Your task to perform on an android device: turn on improve location accuracy Image 0: 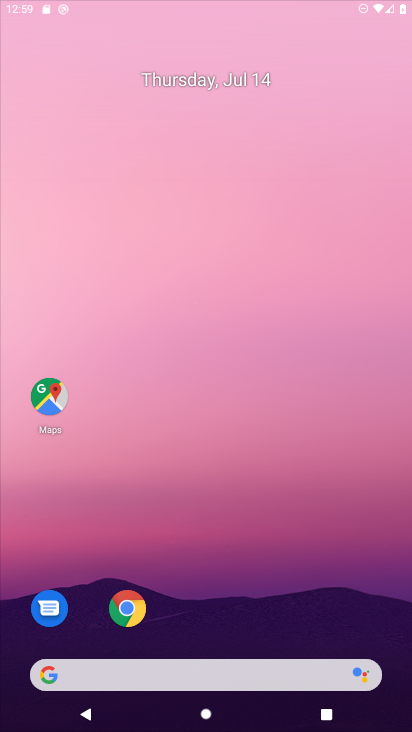
Step 0: press home button
Your task to perform on an android device: turn on improve location accuracy Image 1: 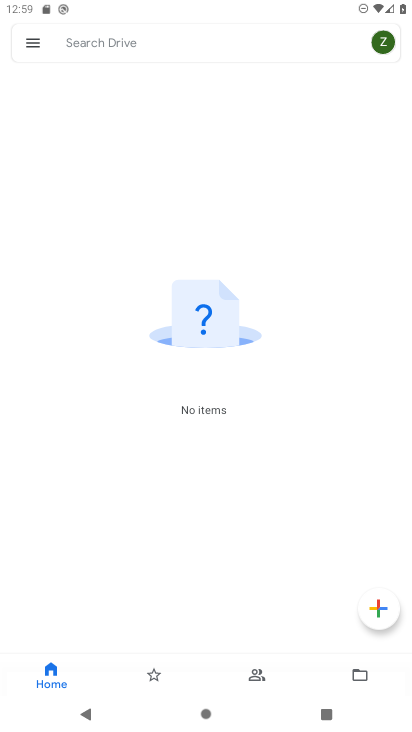
Step 1: drag from (244, 95) to (244, 55)
Your task to perform on an android device: turn on improve location accuracy Image 2: 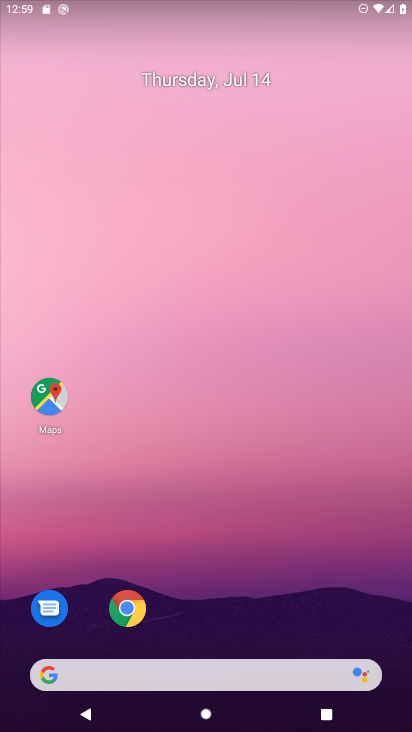
Step 2: drag from (233, 725) to (243, 114)
Your task to perform on an android device: turn on improve location accuracy Image 3: 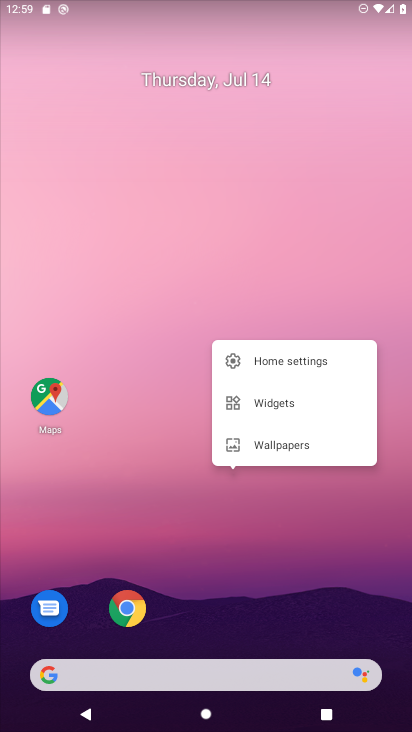
Step 3: click (87, 328)
Your task to perform on an android device: turn on improve location accuracy Image 4: 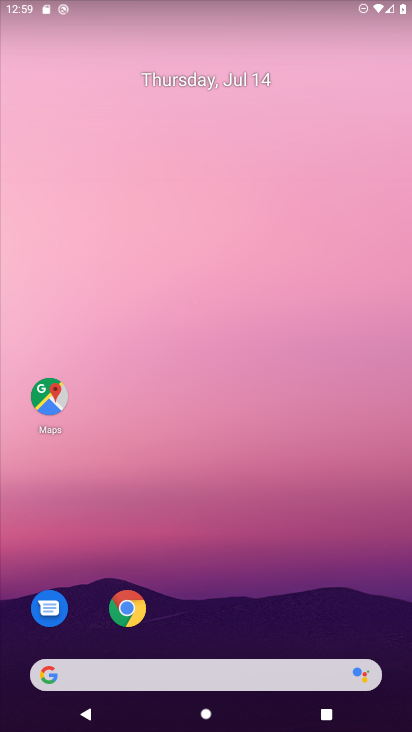
Step 4: drag from (236, 348) to (226, 117)
Your task to perform on an android device: turn on improve location accuracy Image 5: 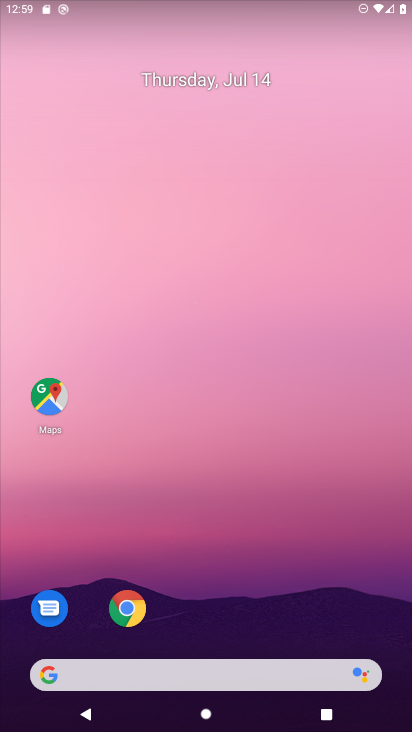
Step 5: drag from (231, 417) to (233, 74)
Your task to perform on an android device: turn on improve location accuracy Image 6: 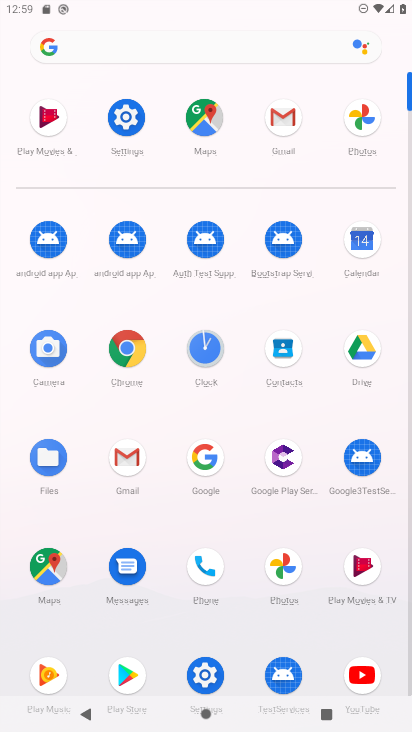
Step 6: click (123, 115)
Your task to perform on an android device: turn on improve location accuracy Image 7: 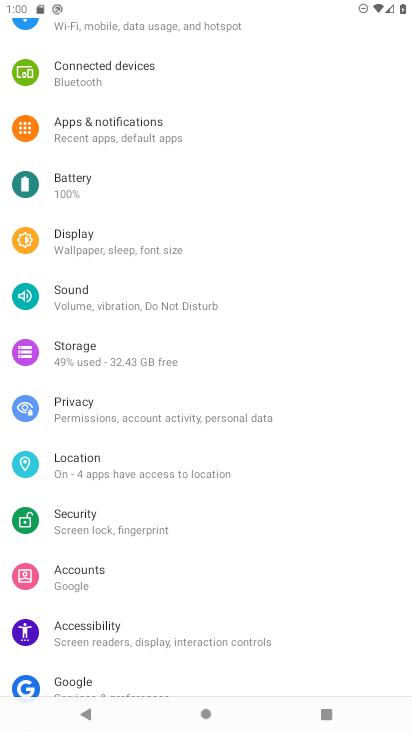
Step 7: click (74, 466)
Your task to perform on an android device: turn on improve location accuracy Image 8: 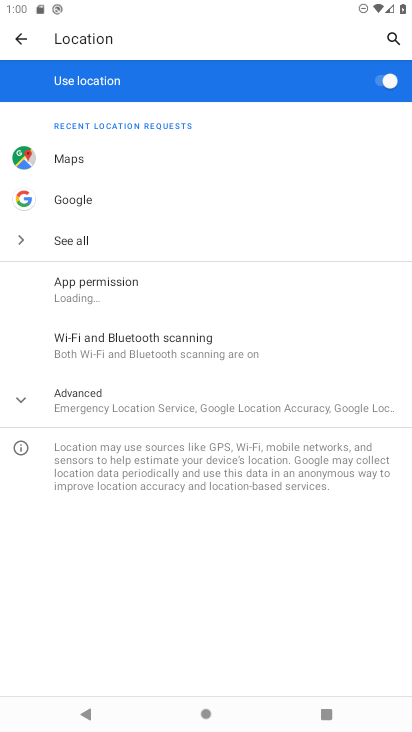
Step 8: click (101, 398)
Your task to perform on an android device: turn on improve location accuracy Image 9: 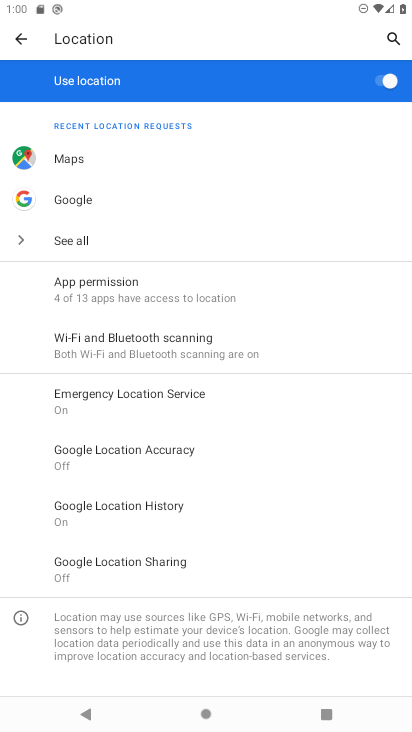
Step 9: click (132, 449)
Your task to perform on an android device: turn on improve location accuracy Image 10: 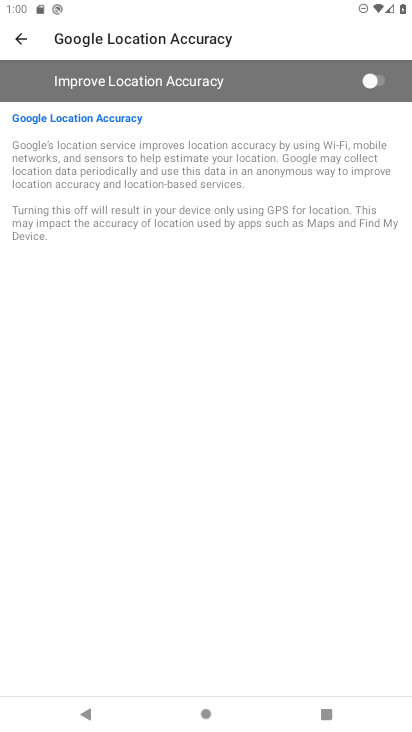
Step 10: click (378, 76)
Your task to perform on an android device: turn on improve location accuracy Image 11: 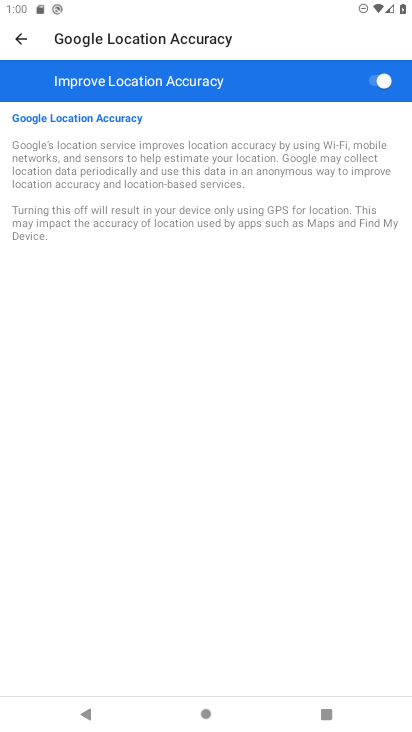
Step 11: task complete